Your task to perform on an android device: Open CNN.com Image 0: 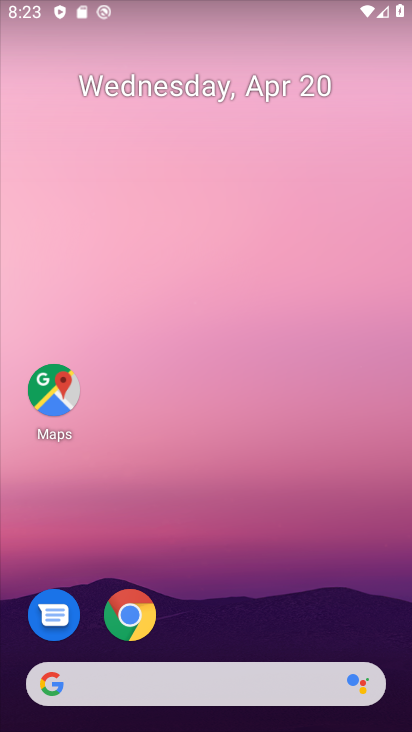
Step 0: click (130, 603)
Your task to perform on an android device: Open CNN.com Image 1: 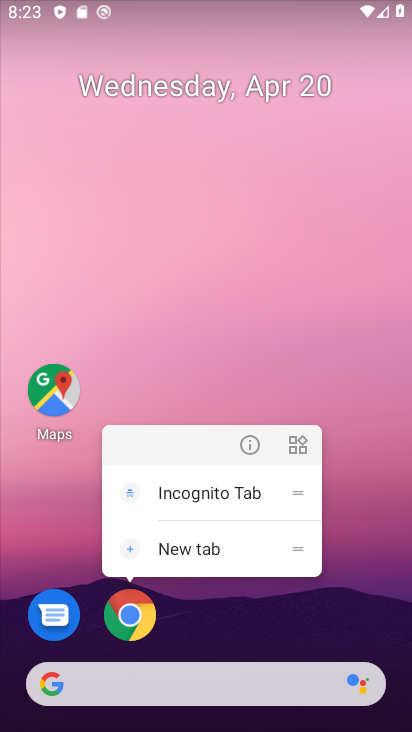
Step 1: click (115, 633)
Your task to perform on an android device: Open CNN.com Image 2: 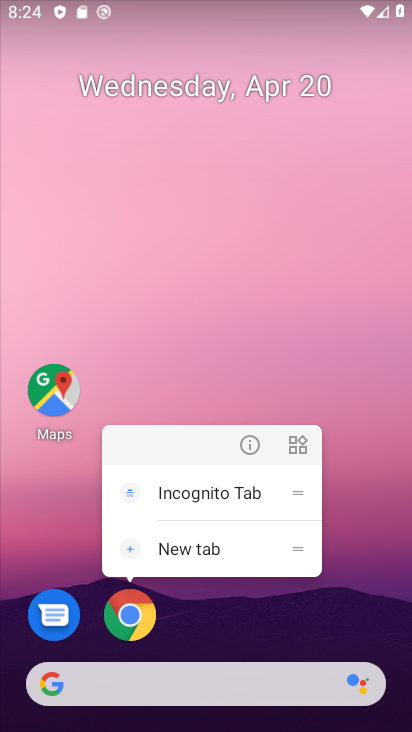
Step 2: click (257, 440)
Your task to perform on an android device: Open CNN.com Image 3: 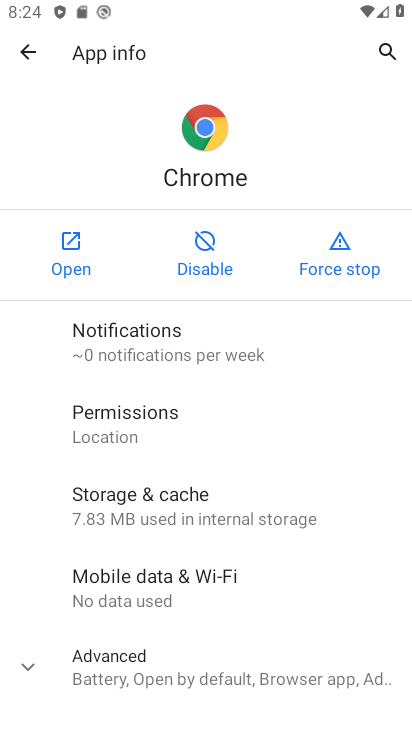
Step 3: click (75, 250)
Your task to perform on an android device: Open CNN.com Image 4: 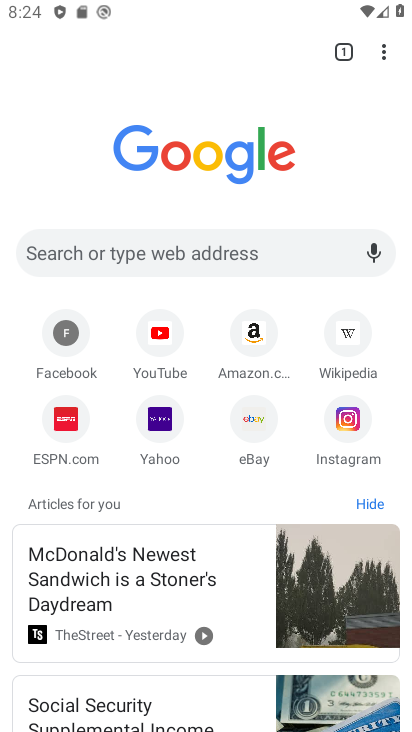
Step 4: click (198, 245)
Your task to perform on an android device: Open CNN.com Image 5: 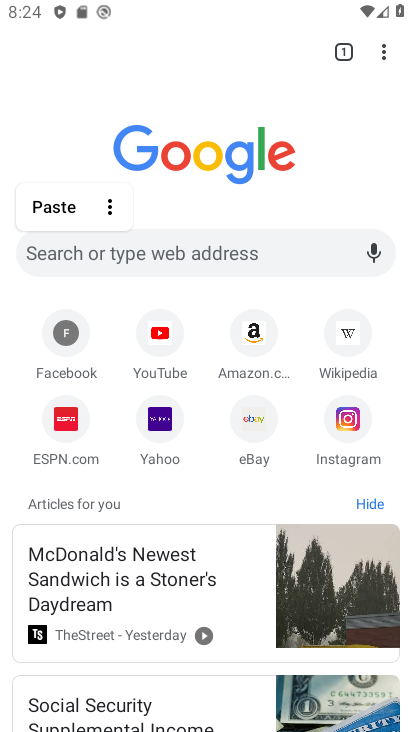
Step 5: click (252, 251)
Your task to perform on an android device: Open CNN.com Image 6: 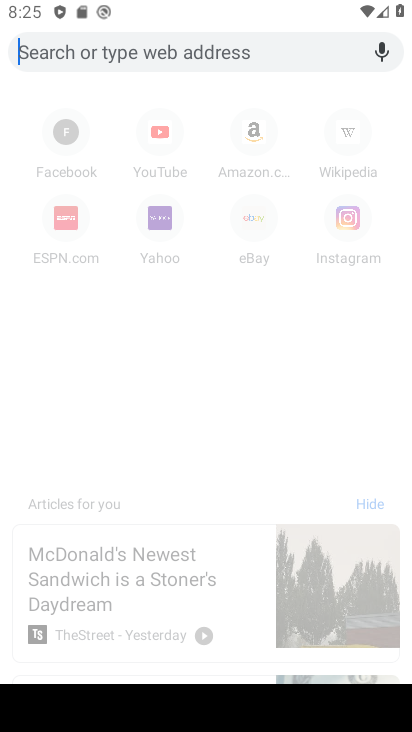
Step 6: click (184, 51)
Your task to perform on an android device: Open CNN.com Image 7: 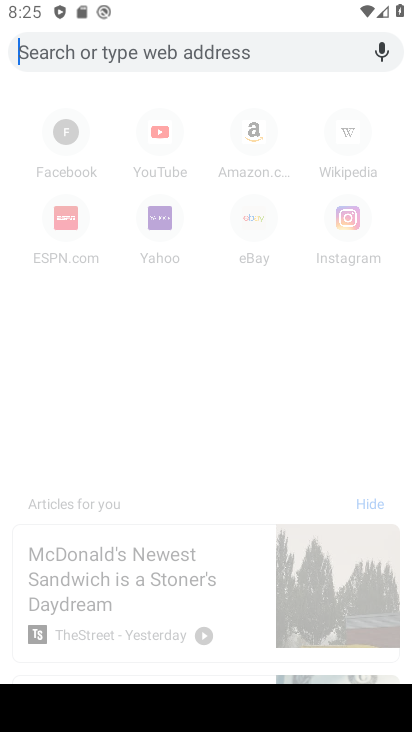
Step 7: type "CNN.com"
Your task to perform on an android device: Open CNN.com Image 8: 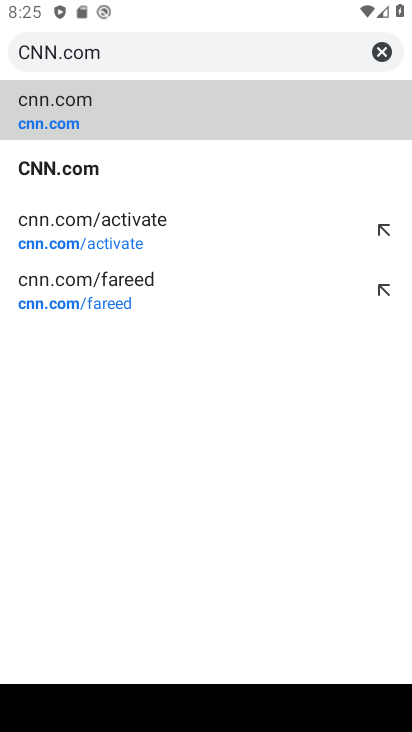
Step 8: click (125, 164)
Your task to perform on an android device: Open CNN.com Image 9: 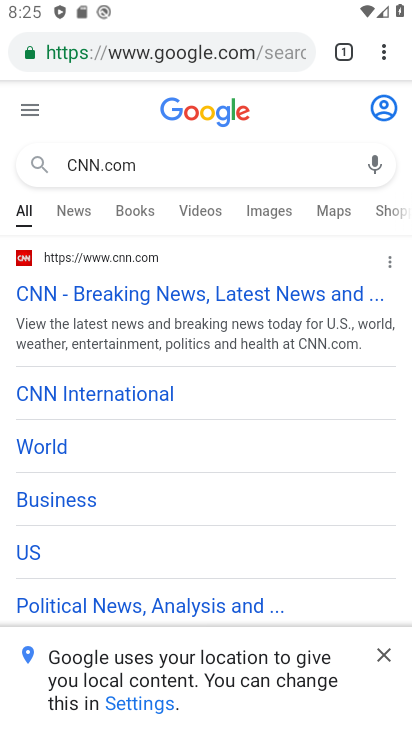
Step 9: task complete